Your task to perform on an android device: change your default location settings in chrome Image 0: 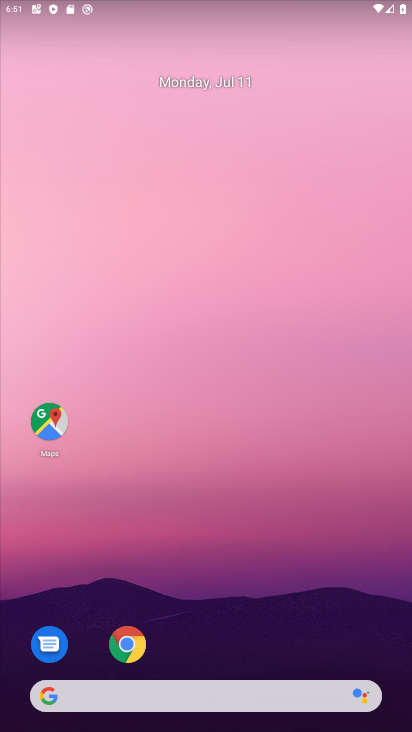
Step 0: drag from (292, 619) to (271, 50)
Your task to perform on an android device: change your default location settings in chrome Image 1: 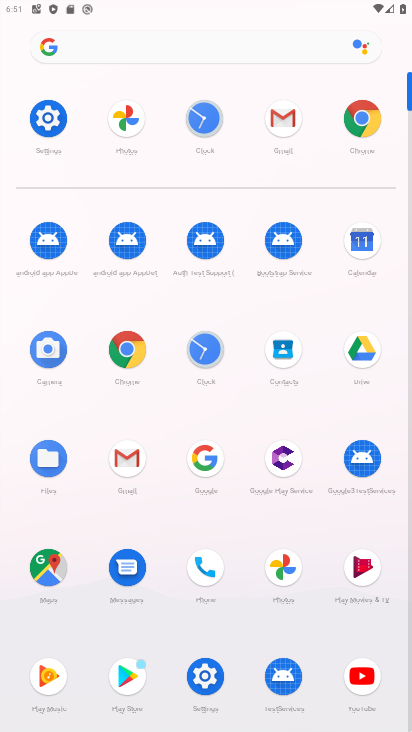
Step 1: click (121, 343)
Your task to perform on an android device: change your default location settings in chrome Image 2: 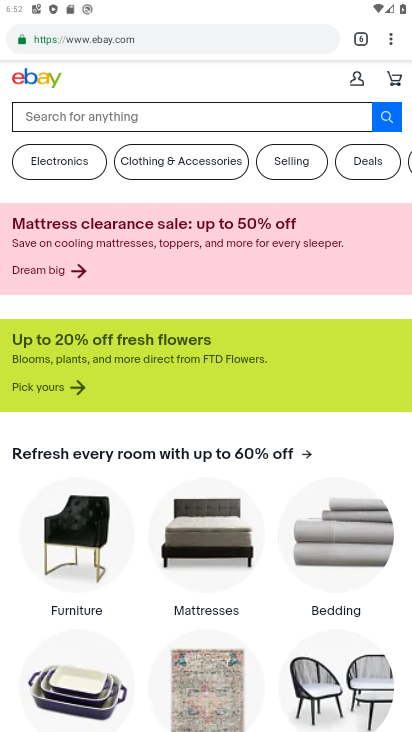
Step 2: drag from (394, 33) to (264, 473)
Your task to perform on an android device: change your default location settings in chrome Image 3: 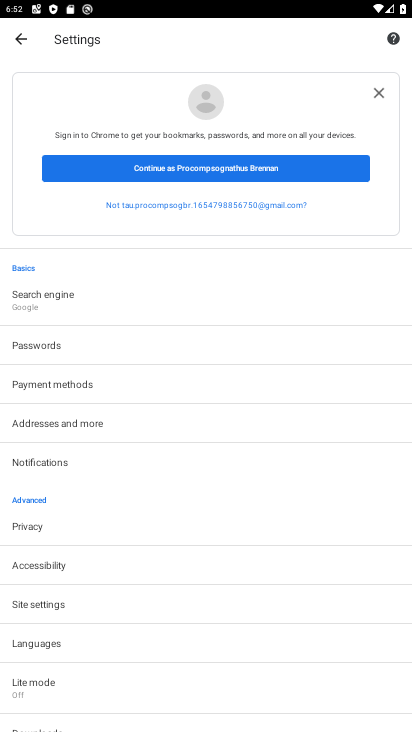
Step 3: drag from (64, 648) to (96, 396)
Your task to perform on an android device: change your default location settings in chrome Image 4: 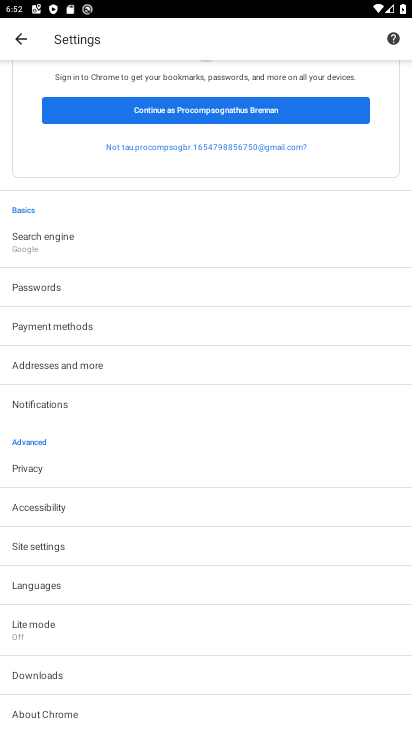
Step 4: click (59, 553)
Your task to perform on an android device: change your default location settings in chrome Image 5: 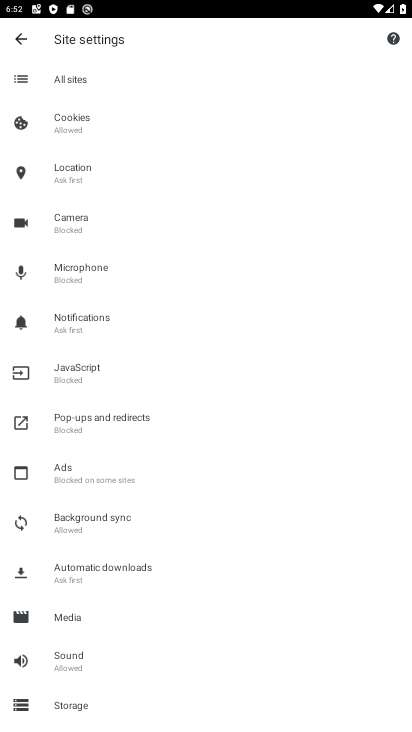
Step 5: click (87, 179)
Your task to perform on an android device: change your default location settings in chrome Image 6: 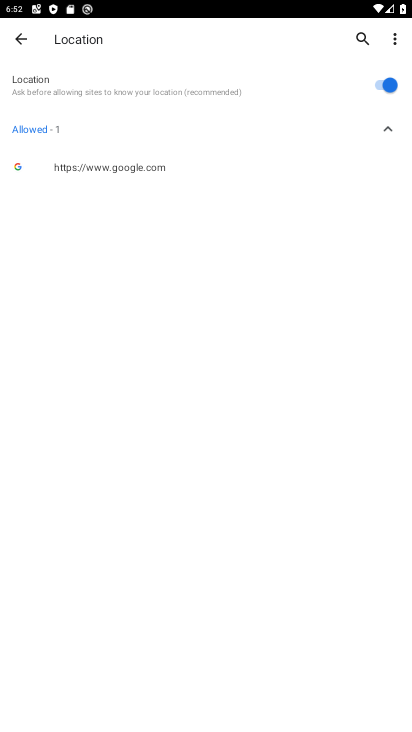
Step 6: click (132, 168)
Your task to perform on an android device: change your default location settings in chrome Image 7: 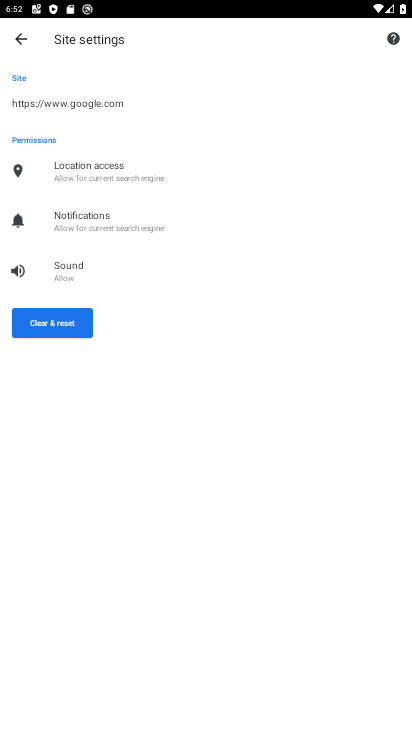
Step 7: click (111, 172)
Your task to perform on an android device: change your default location settings in chrome Image 8: 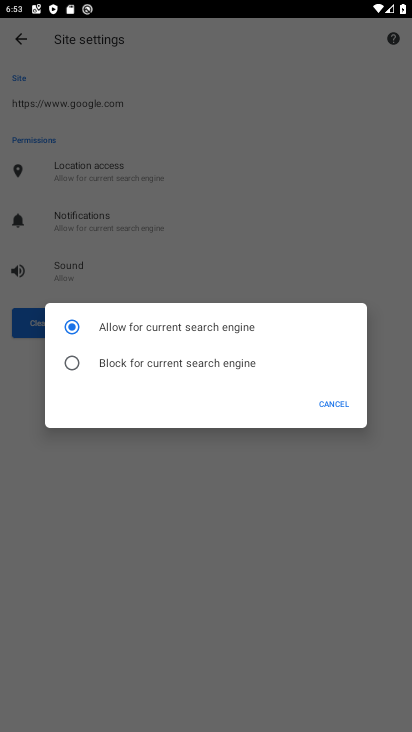
Step 8: click (80, 360)
Your task to perform on an android device: change your default location settings in chrome Image 9: 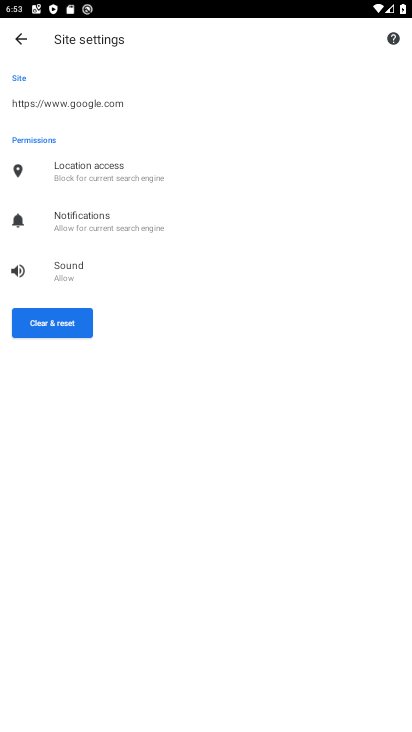
Step 9: task complete